Your task to perform on an android device: turn off location Image 0: 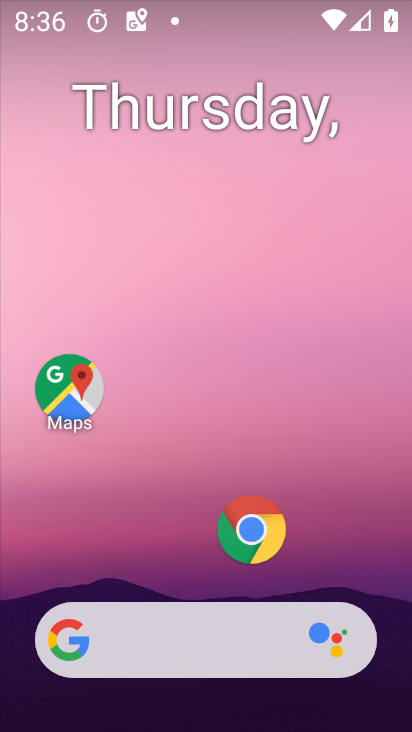
Step 0: press home button
Your task to perform on an android device: turn off location Image 1: 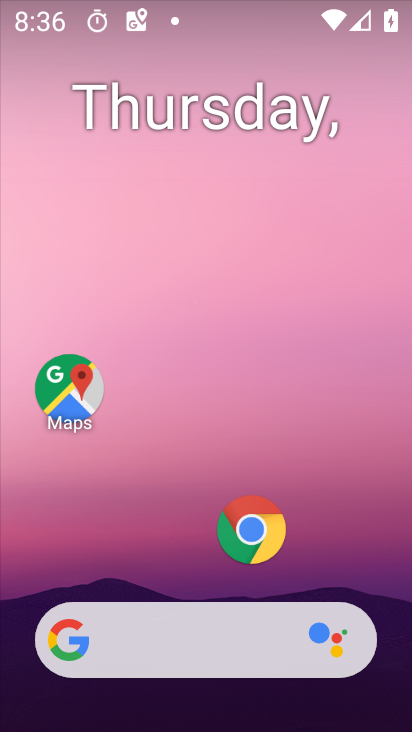
Step 1: drag from (197, 578) to (205, 71)
Your task to perform on an android device: turn off location Image 2: 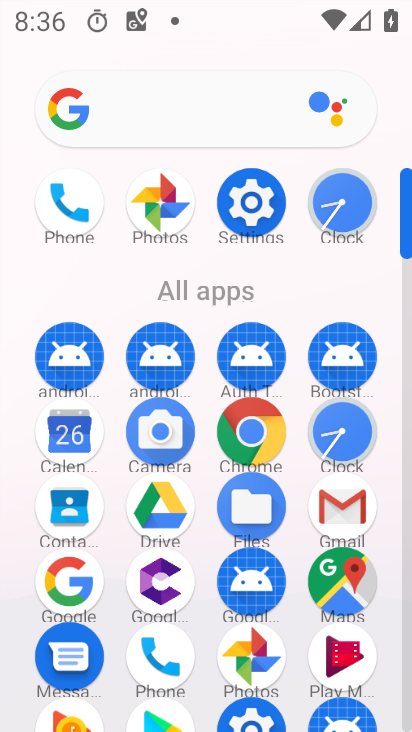
Step 2: click (245, 195)
Your task to perform on an android device: turn off location Image 3: 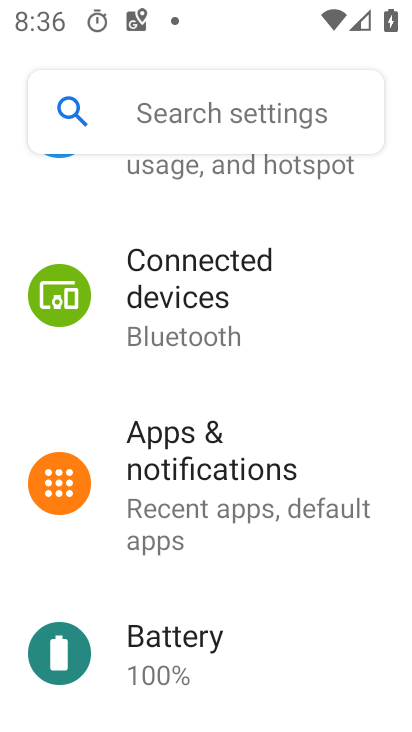
Step 3: drag from (255, 686) to (272, 161)
Your task to perform on an android device: turn off location Image 4: 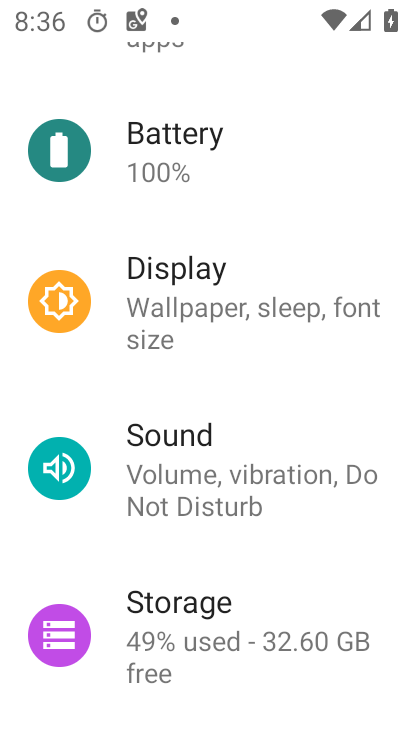
Step 4: drag from (227, 644) to (272, 125)
Your task to perform on an android device: turn off location Image 5: 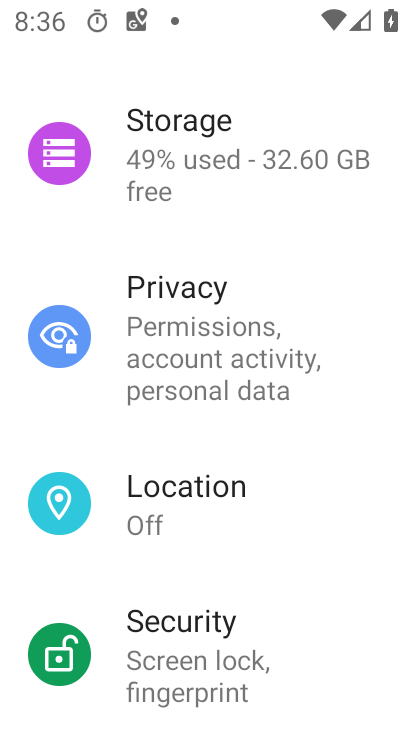
Step 5: click (210, 507)
Your task to perform on an android device: turn off location Image 6: 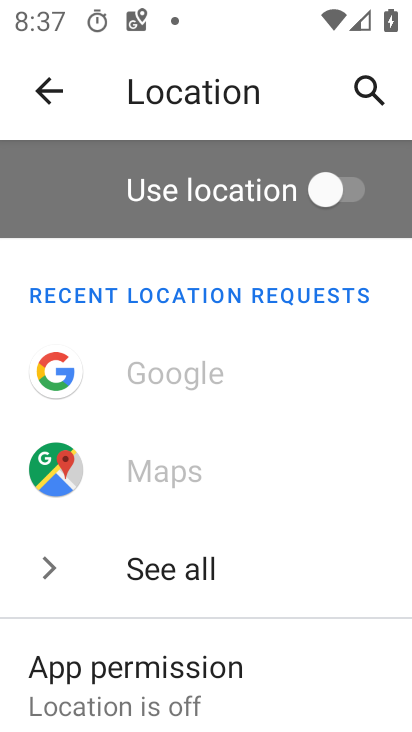
Step 6: task complete